Your task to perform on an android device: What's the weather today? Image 0: 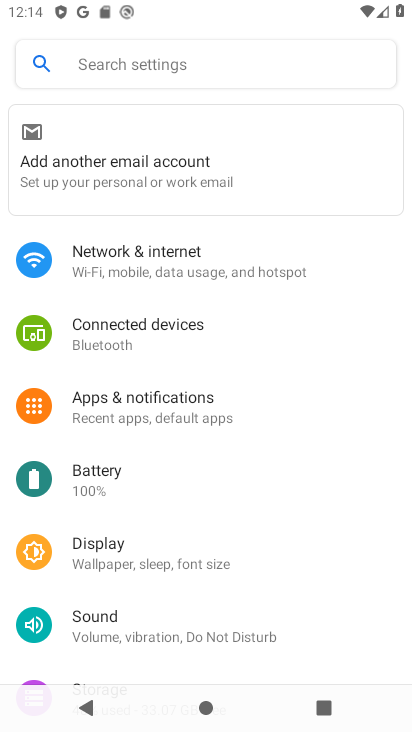
Step 0: press home button
Your task to perform on an android device: What's the weather today? Image 1: 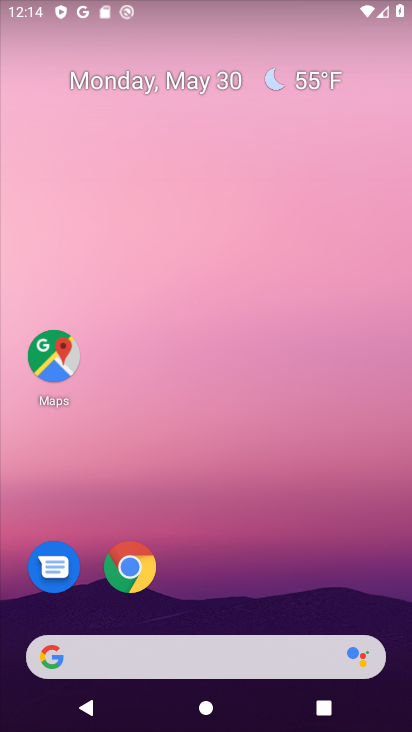
Step 1: click (322, 69)
Your task to perform on an android device: What's the weather today? Image 2: 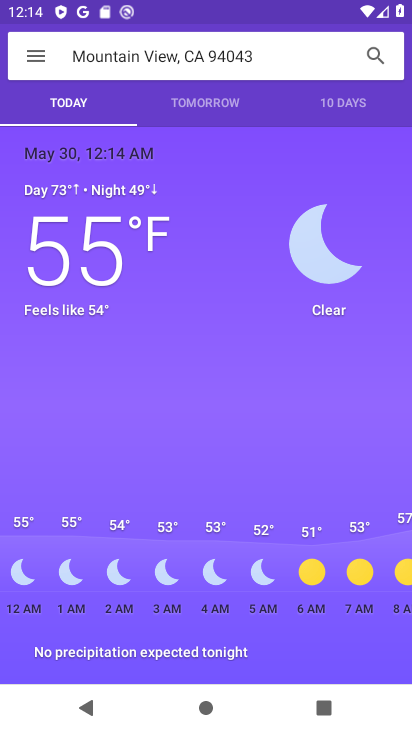
Step 2: task complete